Your task to perform on an android device: Open Youtube and go to the subscriptions tab Image 0: 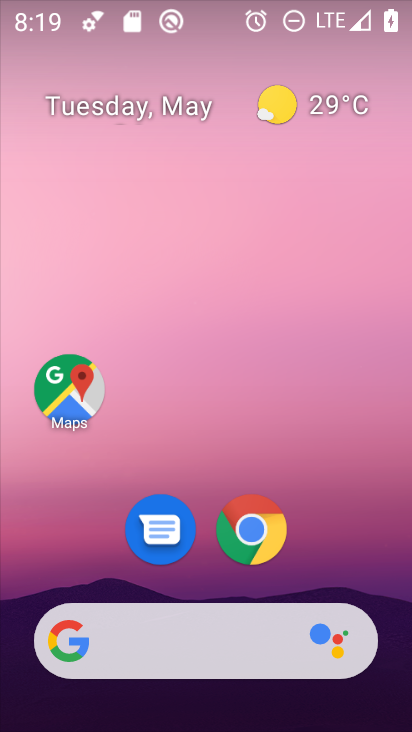
Step 0: drag from (385, 653) to (301, 68)
Your task to perform on an android device: Open Youtube and go to the subscriptions tab Image 1: 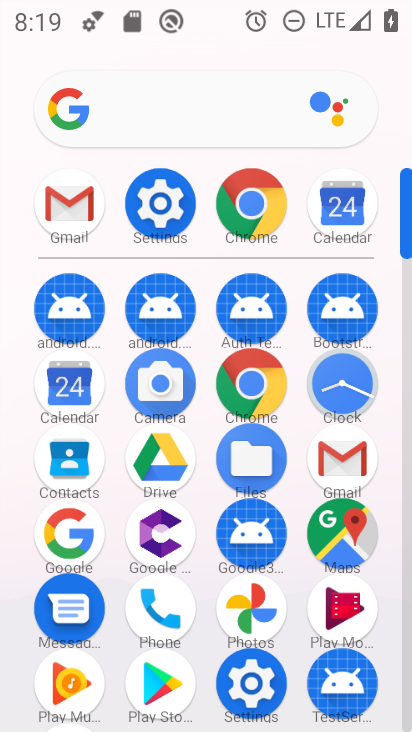
Step 1: drag from (293, 658) to (281, 250)
Your task to perform on an android device: Open Youtube and go to the subscriptions tab Image 2: 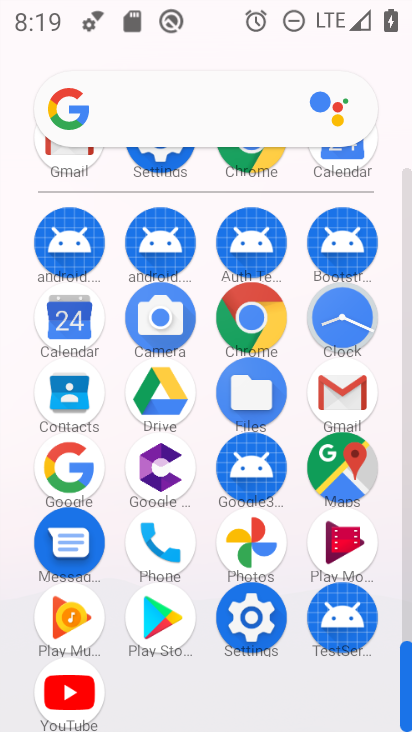
Step 2: click (78, 684)
Your task to perform on an android device: Open Youtube and go to the subscriptions tab Image 3: 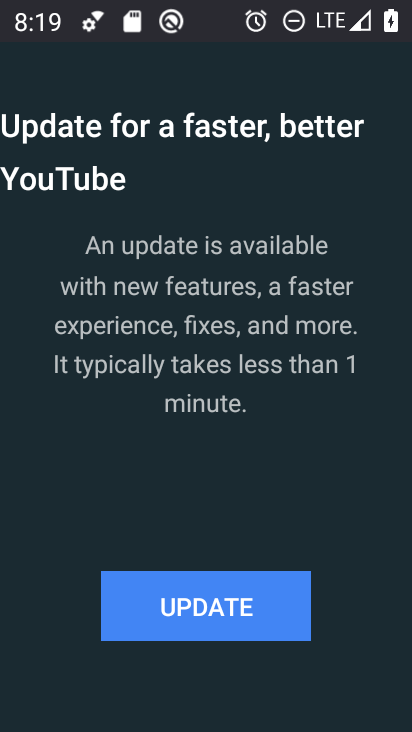
Step 3: drag from (187, 590) to (151, 590)
Your task to perform on an android device: Open Youtube and go to the subscriptions tab Image 4: 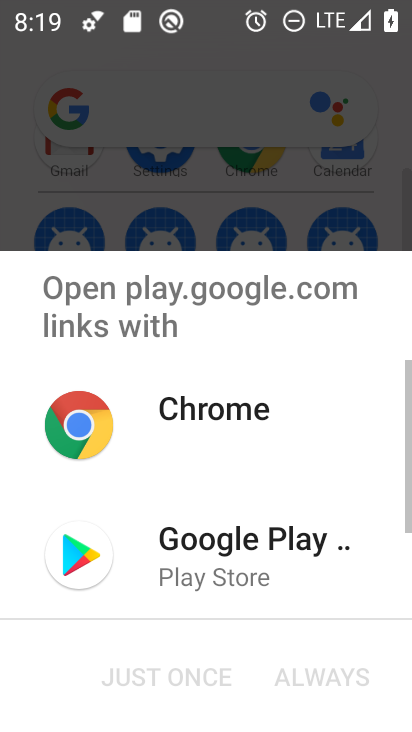
Step 4: click (149, 547)
Your task to perform on an android device: Open Youtube and go to the subscriptions tab Image 5: 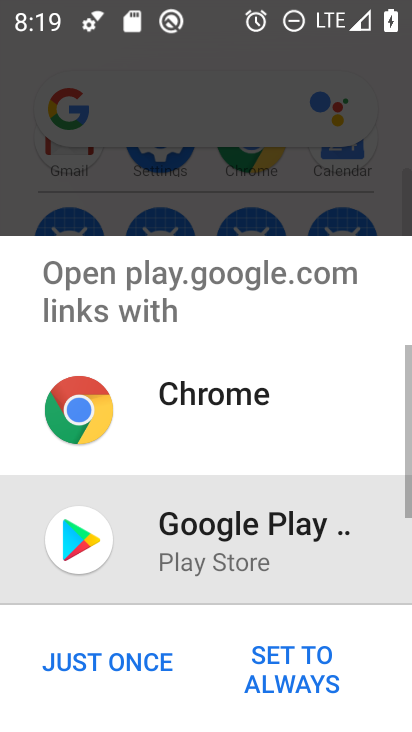
Step 5: click (124, 660)
Your task to perform on an android device: Open Youtube and go to the subscriptions tab Image 6: 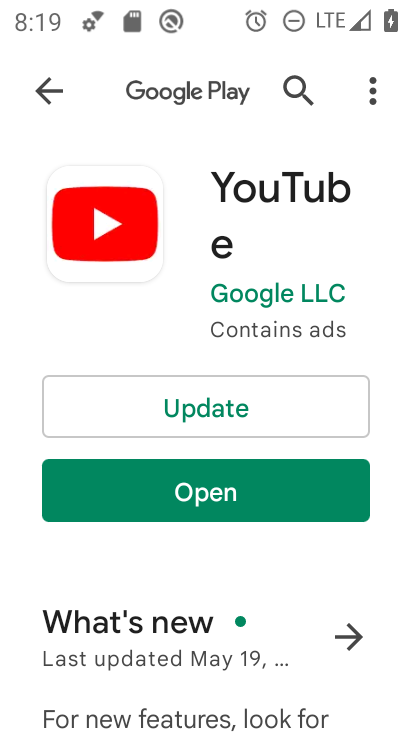
Step 6: click (258, 404)
Your task to perform on an android device: Open Youtube and go to the subscriptions tab Image 7: 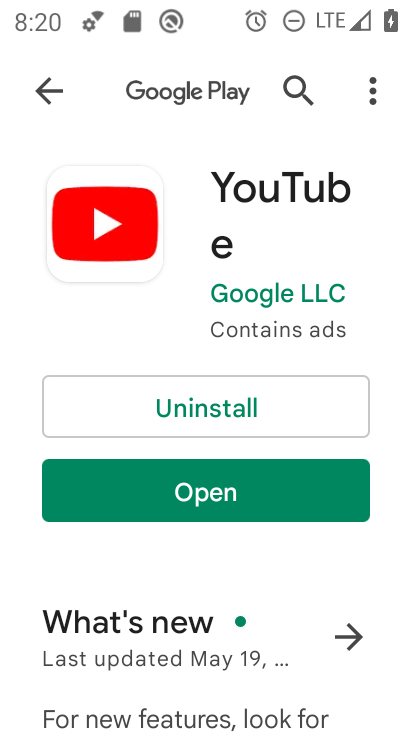
Step 7: click (187, 485)
Your task to perform on an android device: Open Youtube and go to the subscriptions tab Image 8: 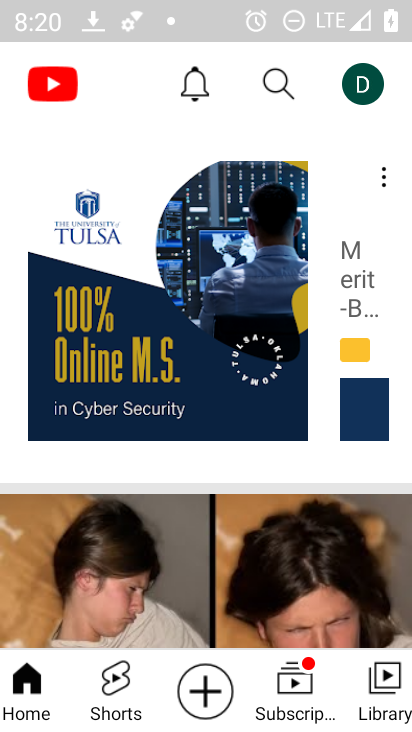
Step 8: click (290, 684)
Your task to perform on an android device: Open Youtube and go to the subscriptions tab Image 9: 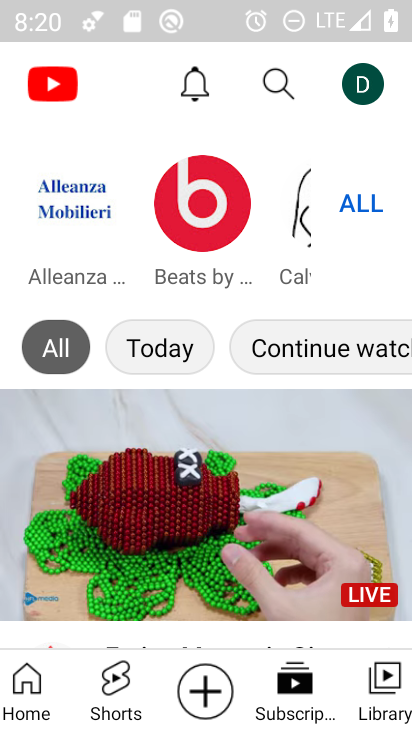
Step 9: task complete